Your task to perform on an android device: remove spam from my inbox in the gmail app Image 0: 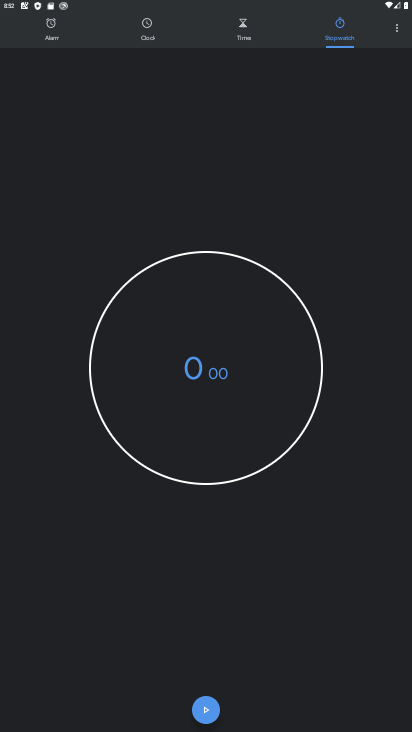
Step 0: press home button
Your task to perform on an android device: remove spam from my inbox in the gmail app Image 1: 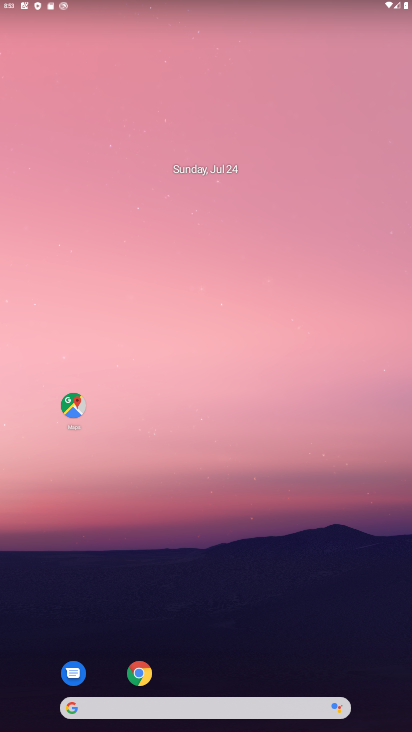
Step 1: drag from (195, 637) to (237, 156)
Your task to perform on an android device: remove spam from my inbox in the gmail app Image 2: 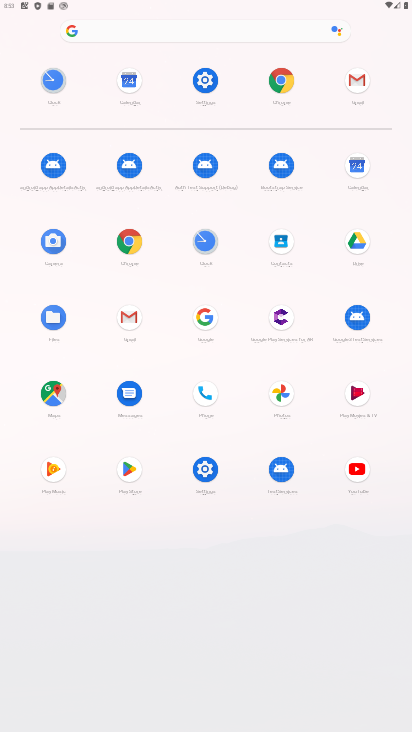
Step 2: click (360, 89)
Your task to perform on an android device: remove spam from my inbox in the gmail app Image 3: 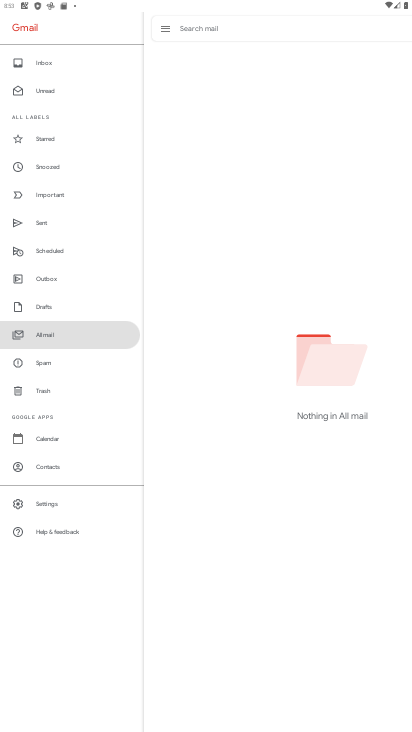
Step 3: click (360, 89)
Your task to perform on an android device: remove spam from my inbox in the gmail app Image 4: 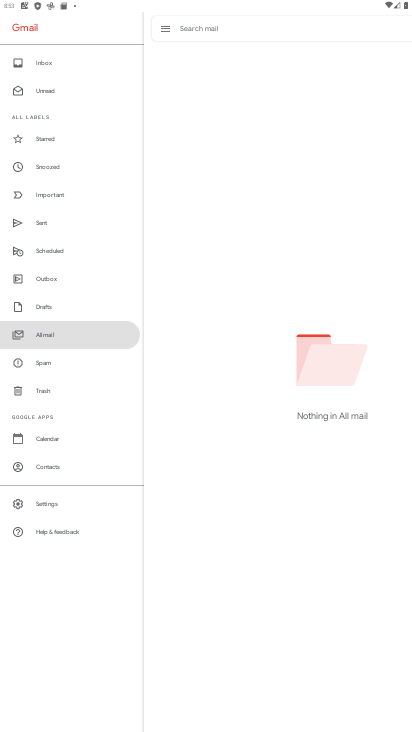
Step 4: click (53, 362)
Your task to perform on an android device: remove spam from my inbox in the gmail app Image 5: 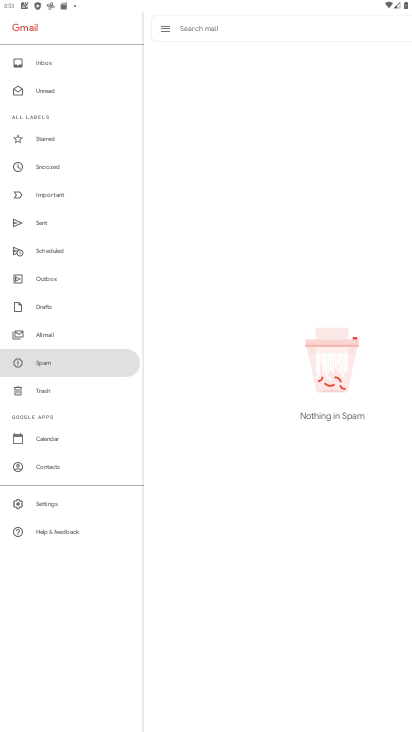
Step 5: task complete